Your task to perform on an android device: toggle data saver in the chrome app Image 0: 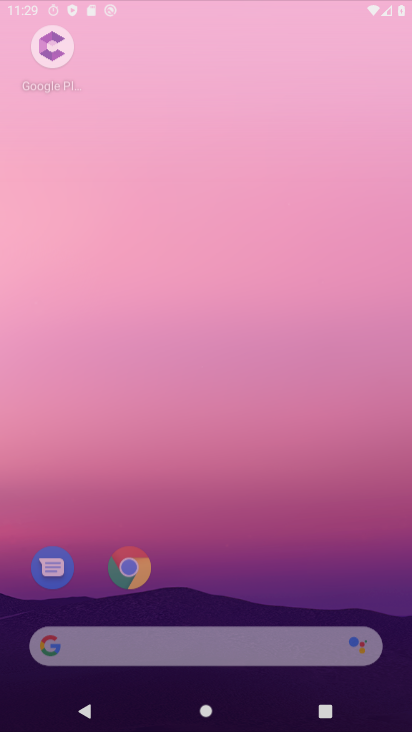
Step 0: click (307, 146)
Your task to perform on an android device: toggle data saver in the chrome app Image 1: 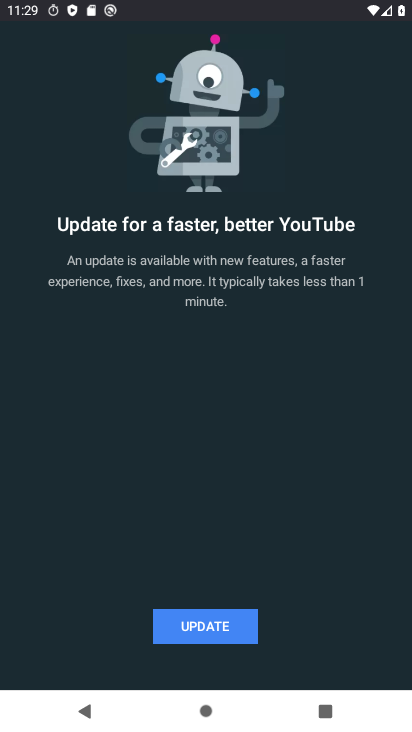
Step 1: press home button
Your task to perform on an android device: toggle data saver in the chrome app Image 2: 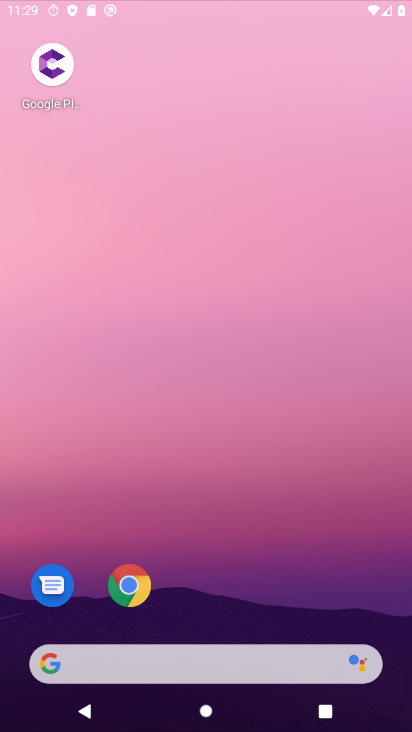
Step 2: drag from (219, 521) to (274, 57)
Your task to perform on an android device: toggle data saver in the chrome app Image 3: 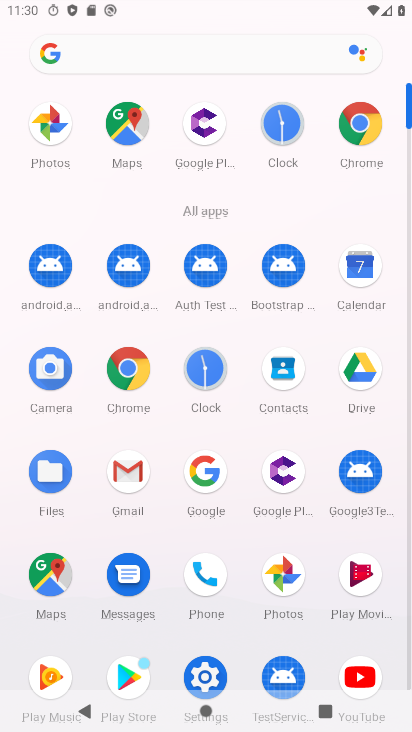
Step 3: click (126, 362)
Your task to perform on an android device: toggle data saver in the chrome app Image 4: 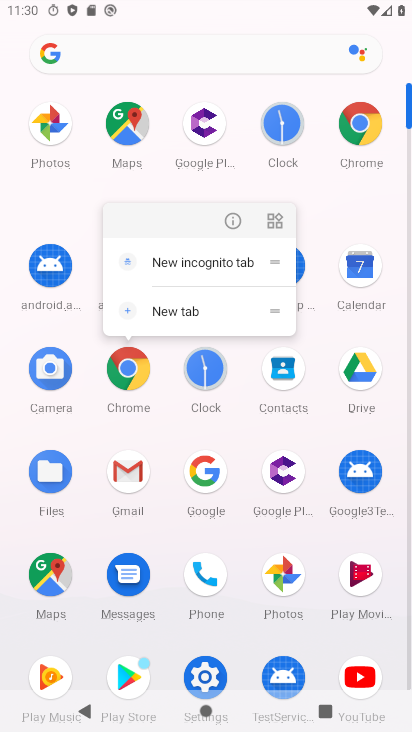
Step 4: click (234, 219)
Your task to perform on an android device: toggle data saver in the chrome app Image 5: 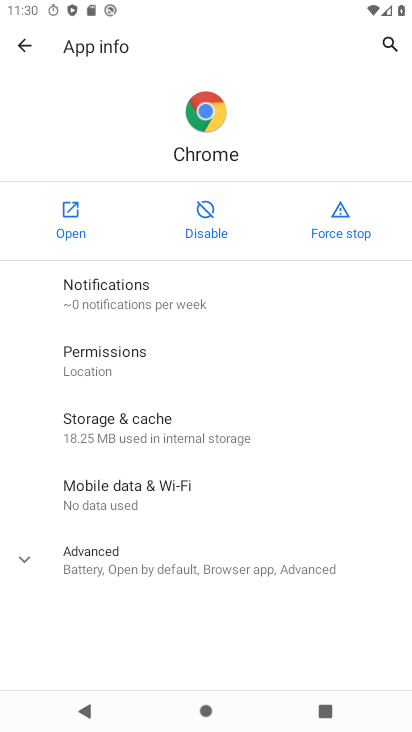
Step 5: click (67, 222)
Your task to perform on an android device: toggle data saver in the chrome app Image 6: 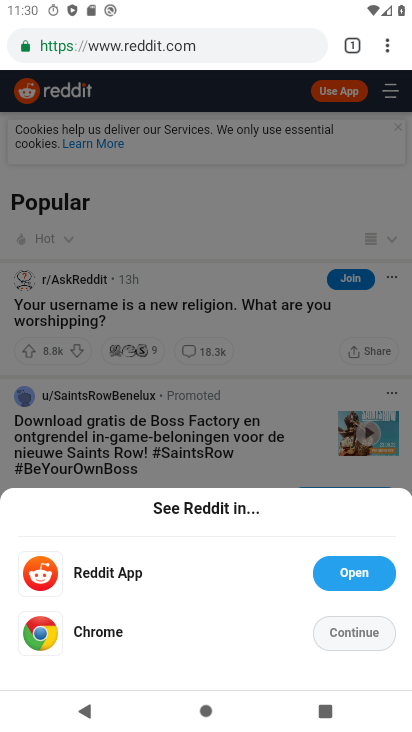
Step 6: click (388, 38)
Your task to perform on an android device: toggle data saver in the chrome app Image 7: 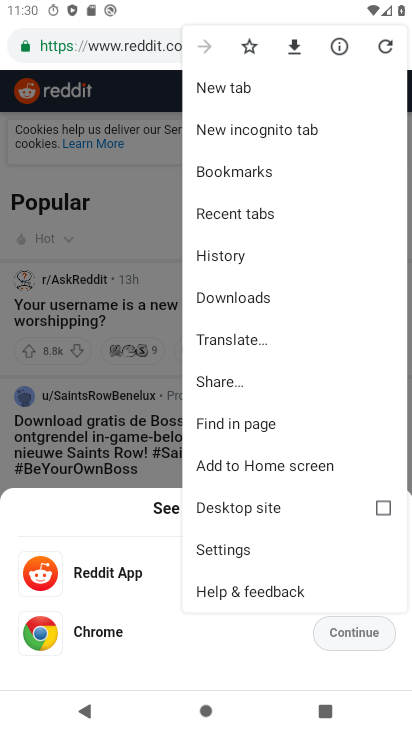
Step 7: click (229, 548)
Your task to perform on an android device: toggle data saver in the chrome app Image 8: 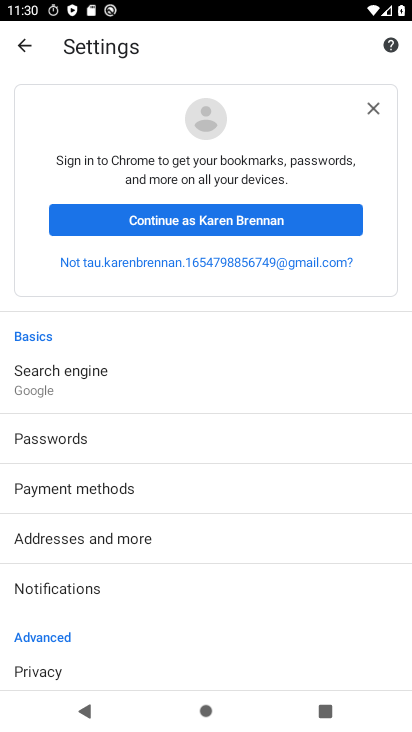
Step 8: drag from (174, 590) to (244, 85)
Your task to perform on an android device: toggle data saver in the chrome app Image 9: 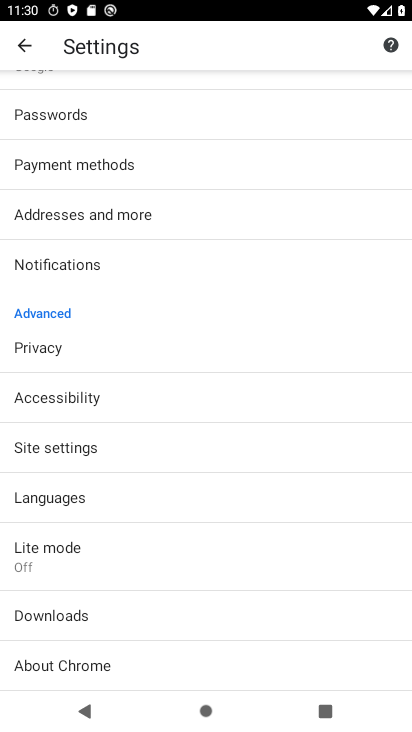
Step 9: drag from (145, 607) to (215, 241)
Your task to perform on an android device: toggle data saver in the chrome app Image 10: 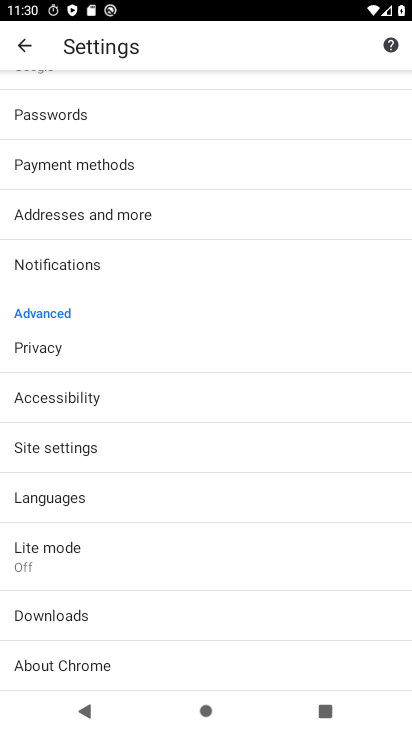
Step 10: click (106, 558)
Your task to perform on an android device: toggle data saver in the chrome app Image 11: 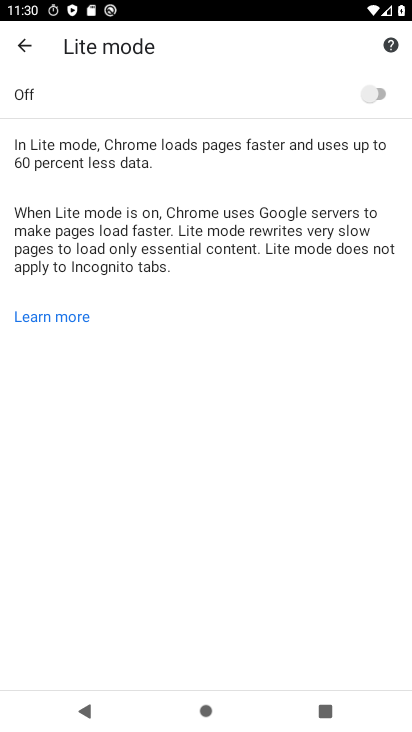
Step 11: click (372, 96)
Your task to perform on an android device: toggle data saver in the chrome app Image 12: 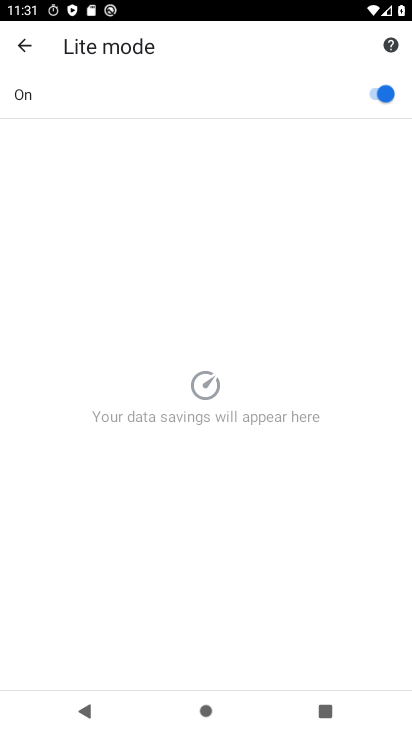
Step 12: task complete